Your task to perform on an android device: turn pop-ups on in chrome Image 0: 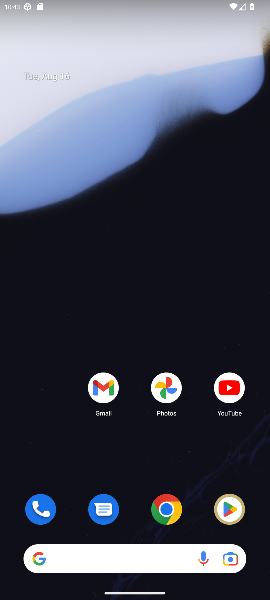
Step 0: drag from (204, 469) to (189, 88)
Your task to perform on an android device: turn pop-ups on in chrome Image 1: 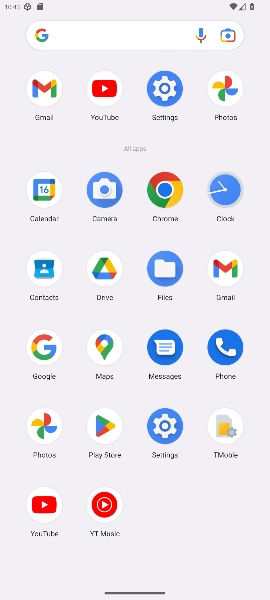
Step 1: click (163, 191)
Your task to perform on an android device: turn pop-ups on in chrome Image 2: 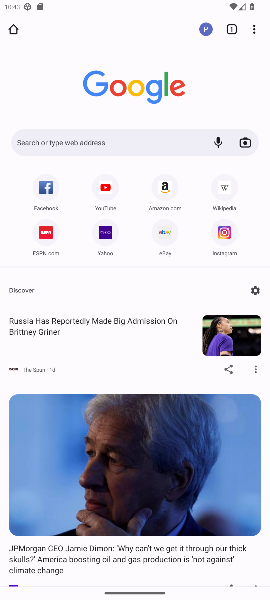
Step 2: drag from (249, 25) to (160, 270)
Your task to perform on an android device: turn pop-ups on in chrome Image 3: 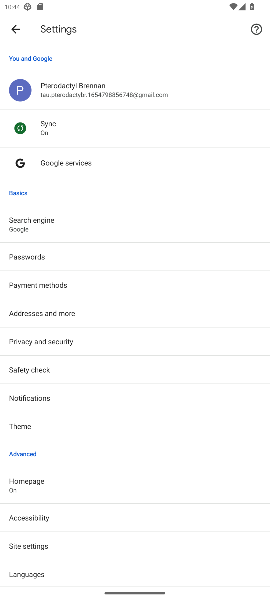
Step 3: click (41, 543)
Your task to perform on an android device: turn pop-ups on in chrome Image 4: 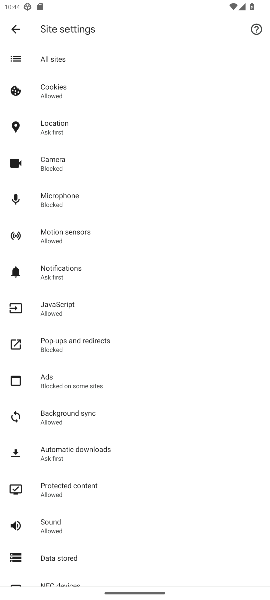
Step 4: click (93, 346)
Your task to perform on an android device: turn pop-ups on in chrome Image 5: 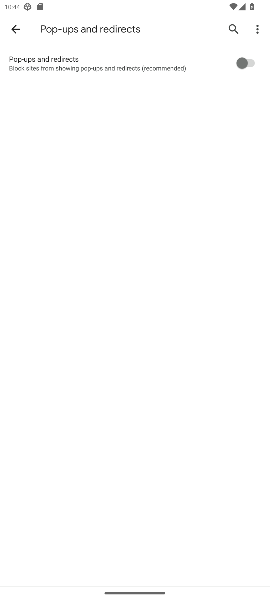
Step 5: click (255, 61)
Your task to perform on an android device: turn pop-ups on in chrome Image 6: 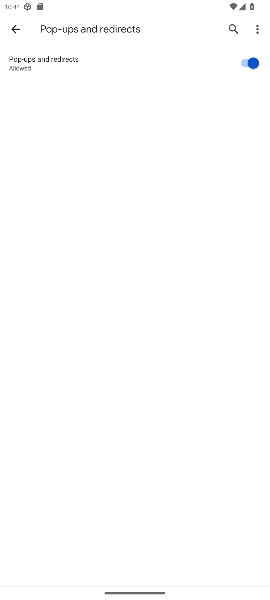
Step 6: task complete